Your task to perform on an android device: What's the weather going to be this weekend? Image 0: 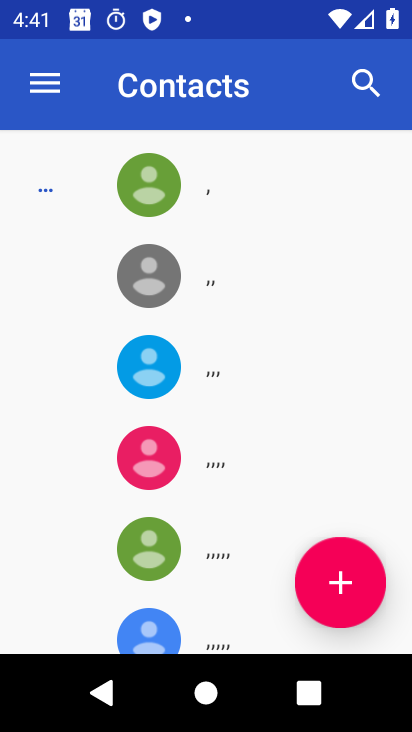
Step 0: press home button
Your task to perform on an android device: What's the weather going to be this weekend? Image 1: 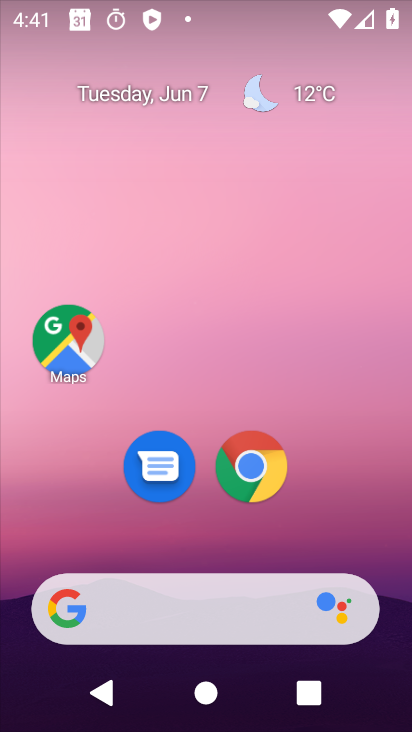
Step 1: click (268, 450)
Your task to perform on an android device: What's the weather going to be this weekend? Image 2: 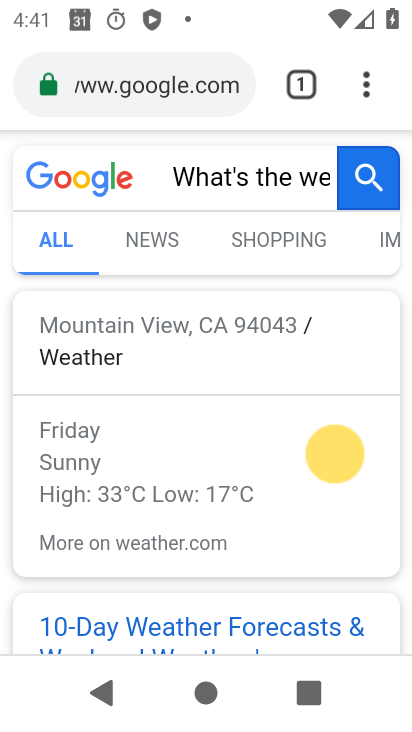
Step 2: click (194, 109)
Your task to perform on an android device: What's the weather going to be this weekend? Image 3: 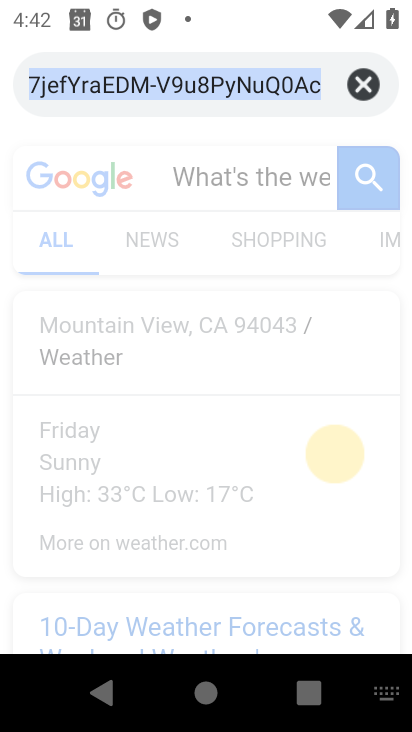
Step 3: type "What's the weather going to be this weekend?"
Your task to perform on an android device: What's the weather going to be this weekend? Image 4: 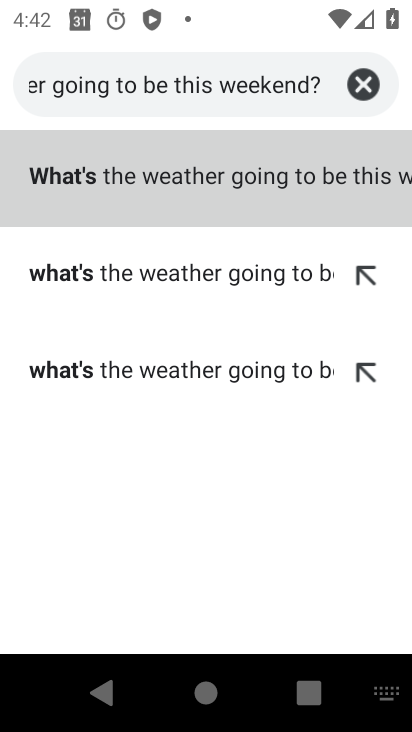
Step 4: click (334, 151)
Your task to perform on an android device: What's the weather going to be this weekend? Image 5: 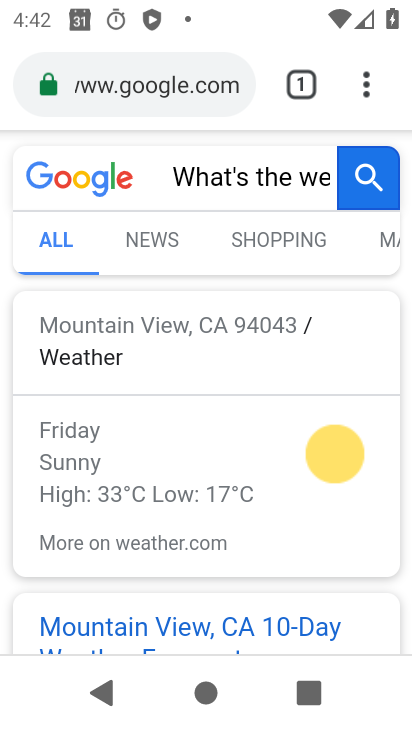
Step 5: task complete